Your task to perform on an android device: turn pop-ups off in chrome Image 0: 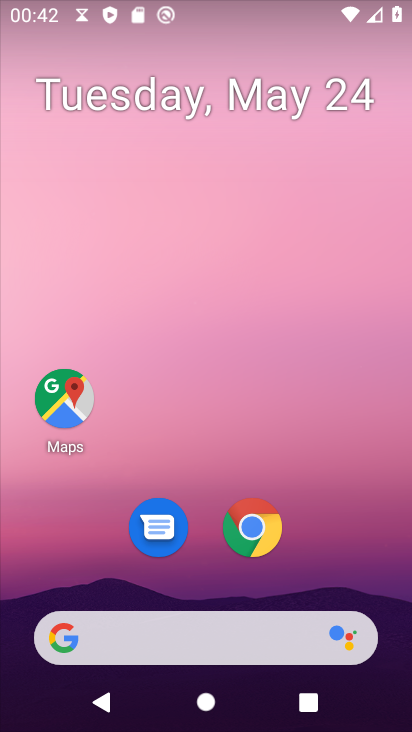
Step 0: press home button
Your task to perform on an android device: turn pop-ups off in chrome Image 1: 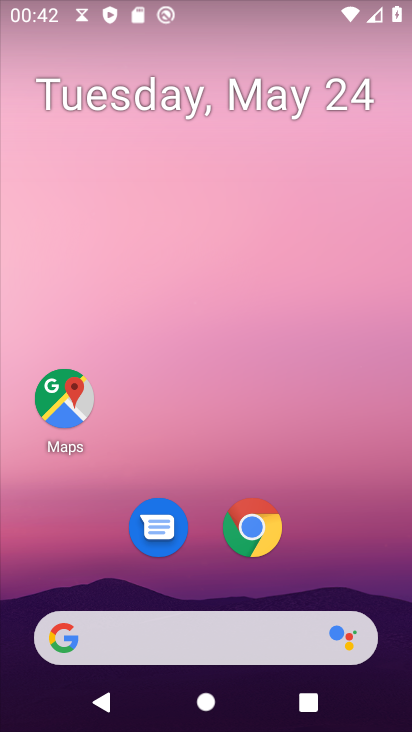
Step 1: click (261, 532)
Your task to perform on an android device: turn pop-ups off in chrome Image 2: 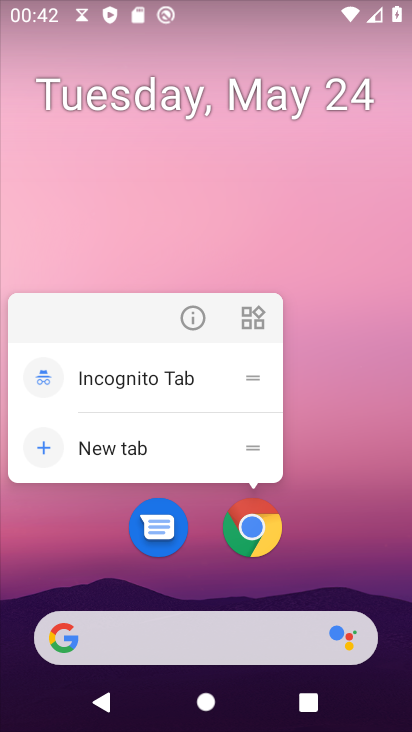
Step 2: click (247, 544)
Your task to perform on an android device: turn pop-ups off in chrome Image 3: 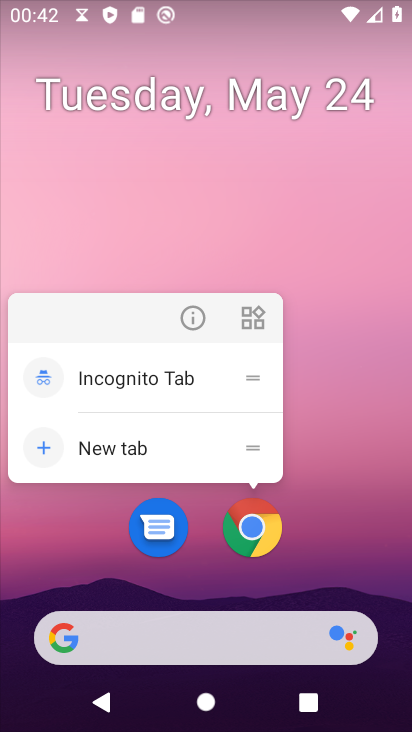
Step 3: click (257, 531)
Your task to perform on an android device: turn pop-ups off in chrome Image 4: 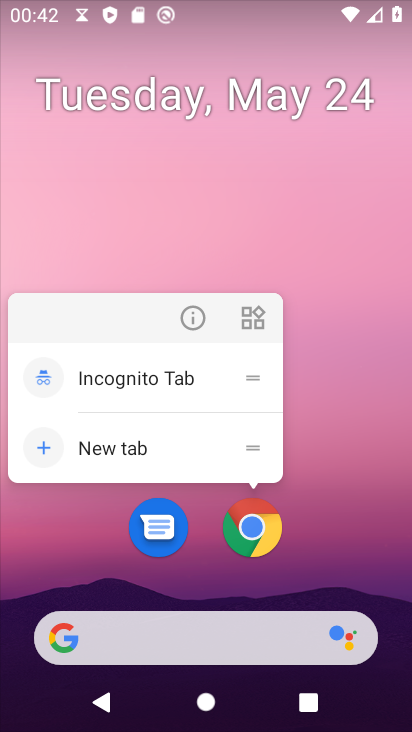
Step 4: click (244, 540)
Your task to perform on an android device: turn pop-ups off in chrome Image 5: 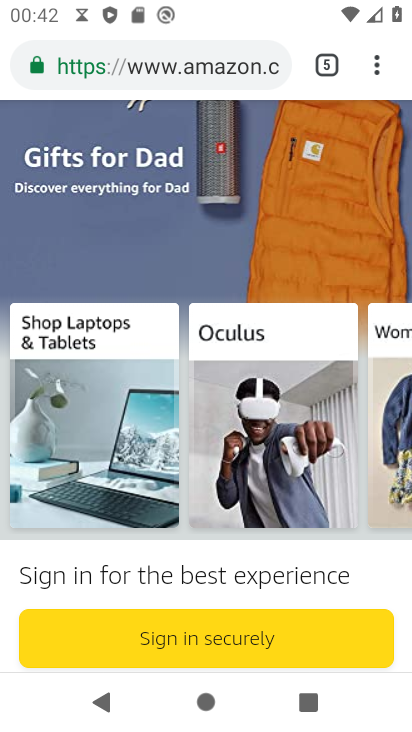
Step 5: drag from (376, 64) to (211, 574)
Your task to perform on an android device: turn pop-ups off in chrome Image 6: 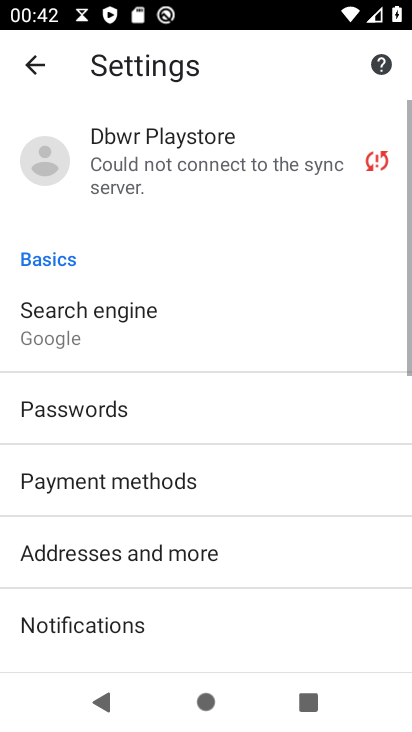
Step 6: drag from (174, 603) to (276, 142)
Your task to perform on an android device: turn pop-ups off in chrome Image 7: 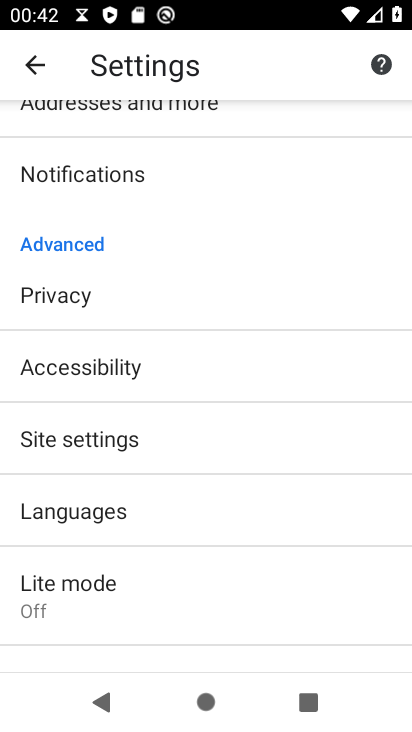
Step 7: click (105, 448)
Your task to perform on an android device: turn pop-ups off in chrome Image 8: 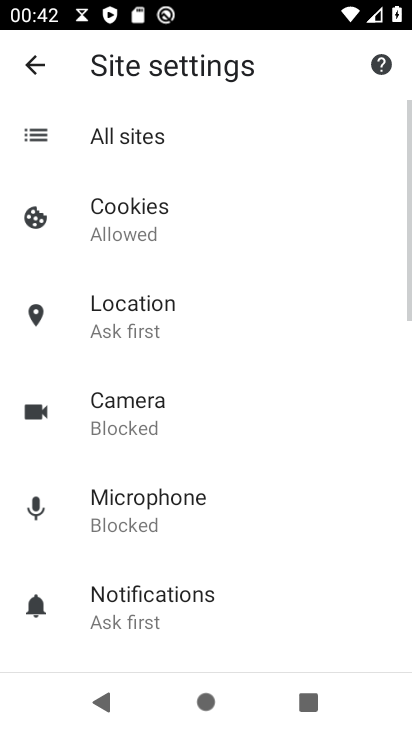
Step 8: drag from (220, 614) to (218, 208)
Your task to perform on an android device: turn pop-ups off in chrome Image 9: 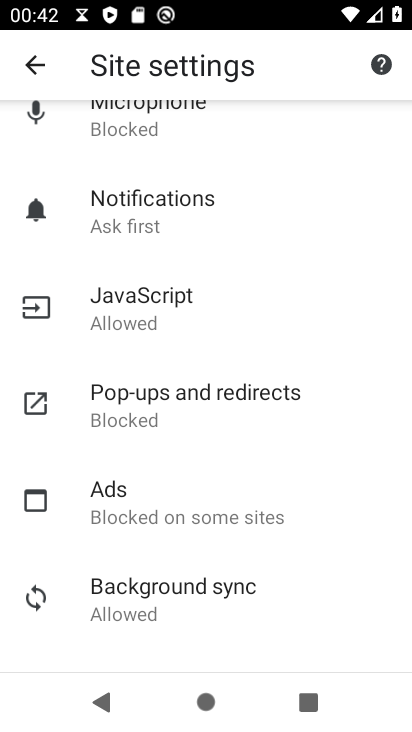
Step 9: click (159, 418)
Your task to perform on an android device: turn pop-ups off in chrome Image 10: 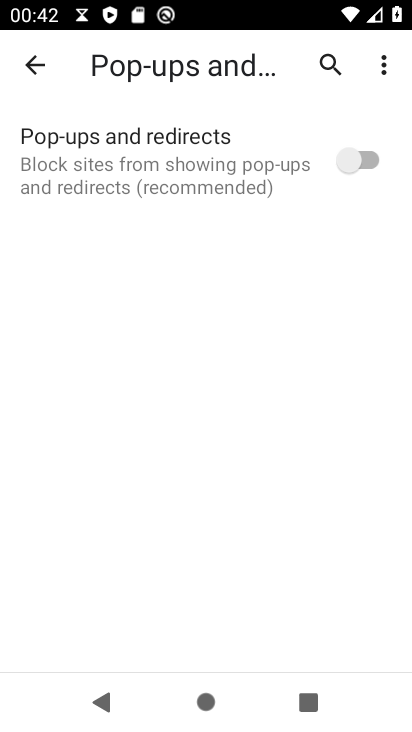
Step 10: task complete